Your task to perform on an android device: find photos in the google photos app Image 0: 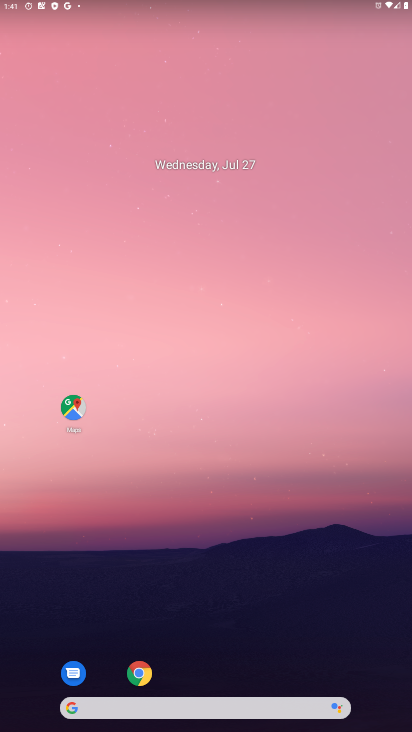
Step 0: drag from (226, 669) to (281, 64)
Your task to perform on an android device: find photos in the google photos app Image 1: 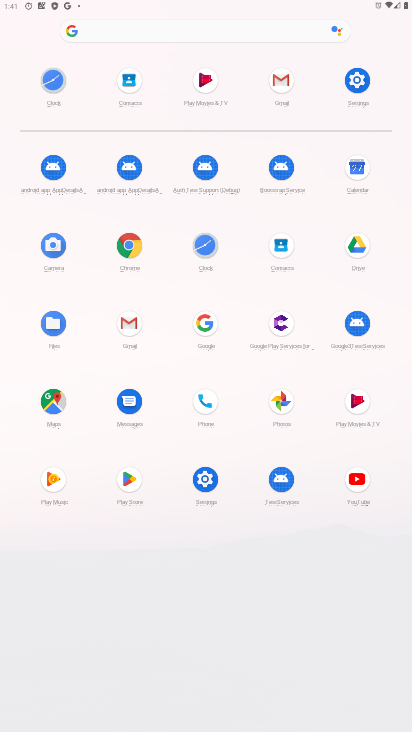
Step 1: click (279, 404)
Your task to perform on an android device: find photos in the google photos app Image 2: 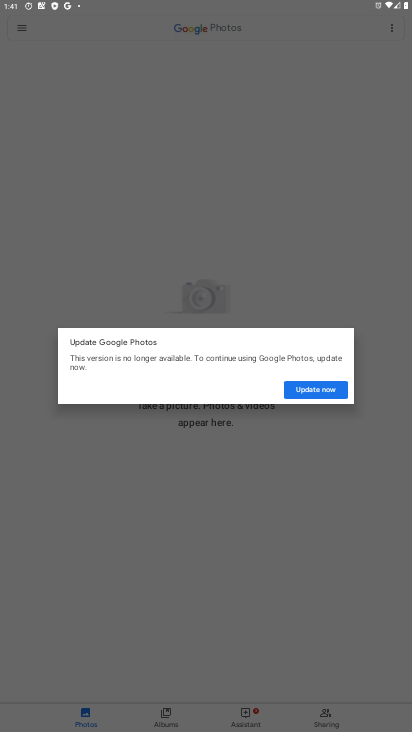
Step 2: click (296, 394)
Your task to perform on an android device: find photos in the google photos app Image 3: 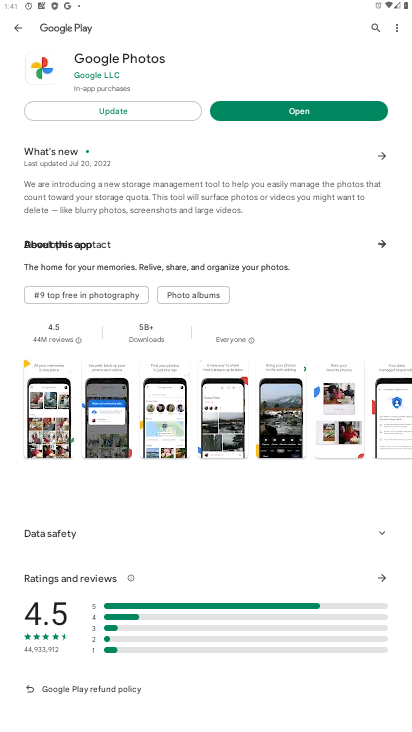
Step 3: click (292, 111)
Your task to perform on an android device: find photos in the google photos app Image 4: 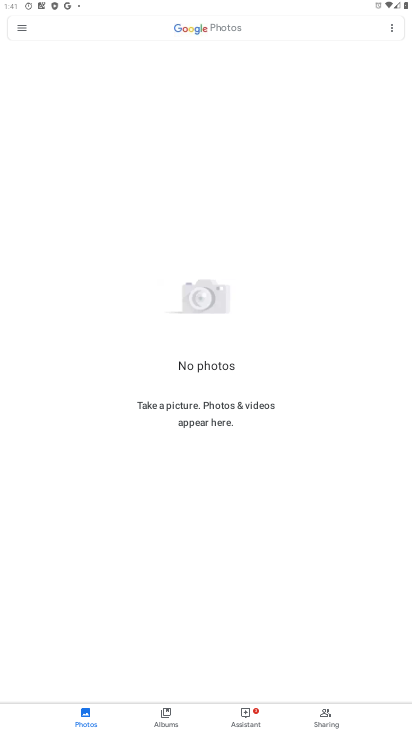
Step 4: click (86, 727)
Your task to perform on an android device: find photos in the google photos app Image 5: 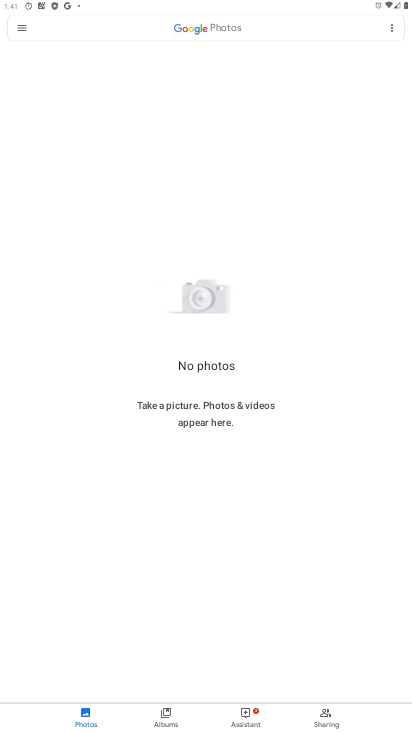
Step 5: task complete